Your task to perform on an android device: turn off location Image 0: 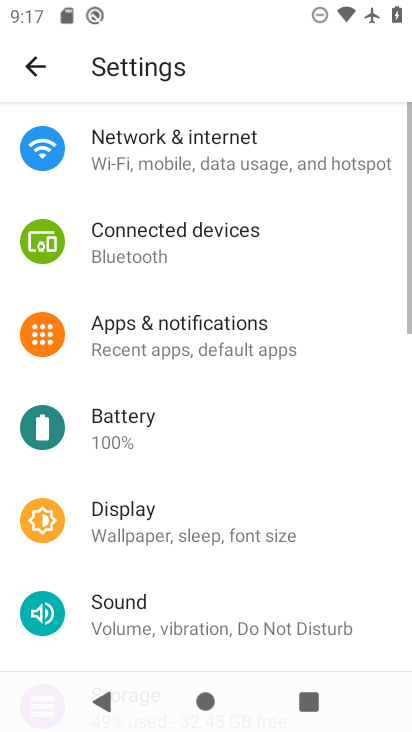
Step 0: drag from (206, 541) to (216, 299)
Your task to perform on an android device: turn off location Image 1: 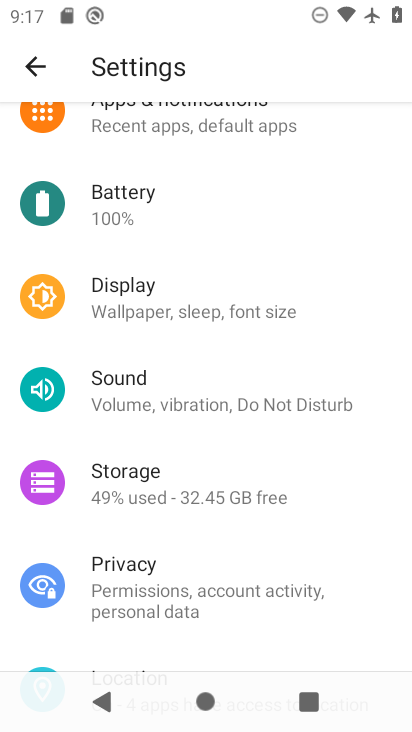
Step 1: drag from (235, 213) to (262, 404)
Your task to perform on an android device: turn off location Image 2: 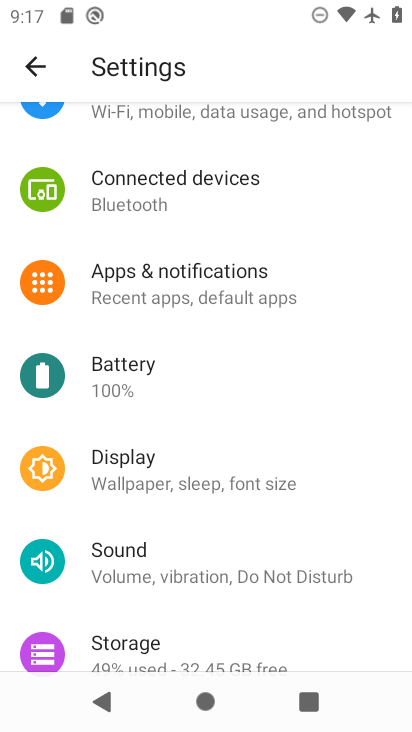
Step 2: drag from (253, 607) to (238, 179)
Your task to perform on an android device: turn off location Image 3: 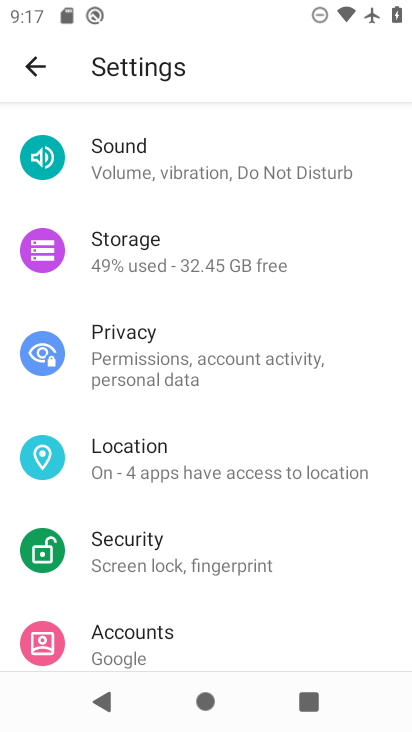
Step 3: click (228, 464)
Your task to perform on an android device: turn off location Image 4: 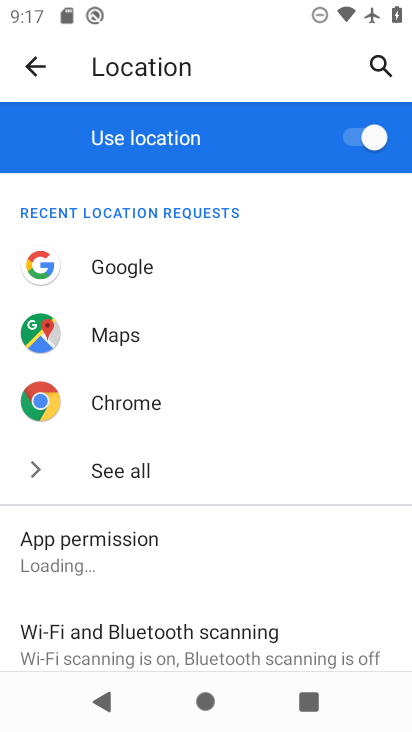
Step 4: click (351, 132)
Your task to perform on an android device: turn off location Image 5: 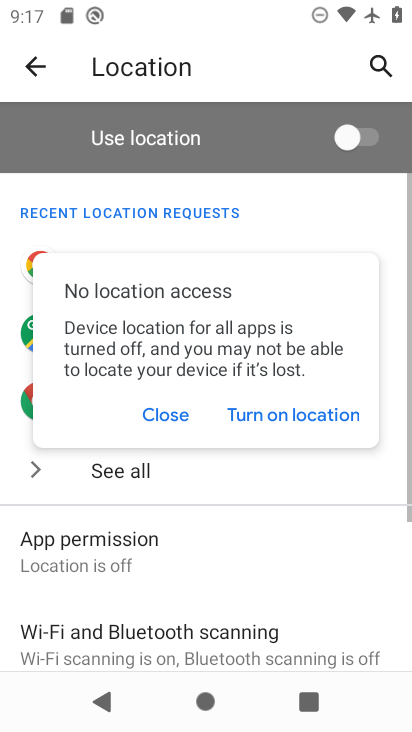
Step 5: task complete